Your task to perform on an android device: Go to sound settings Image 0: 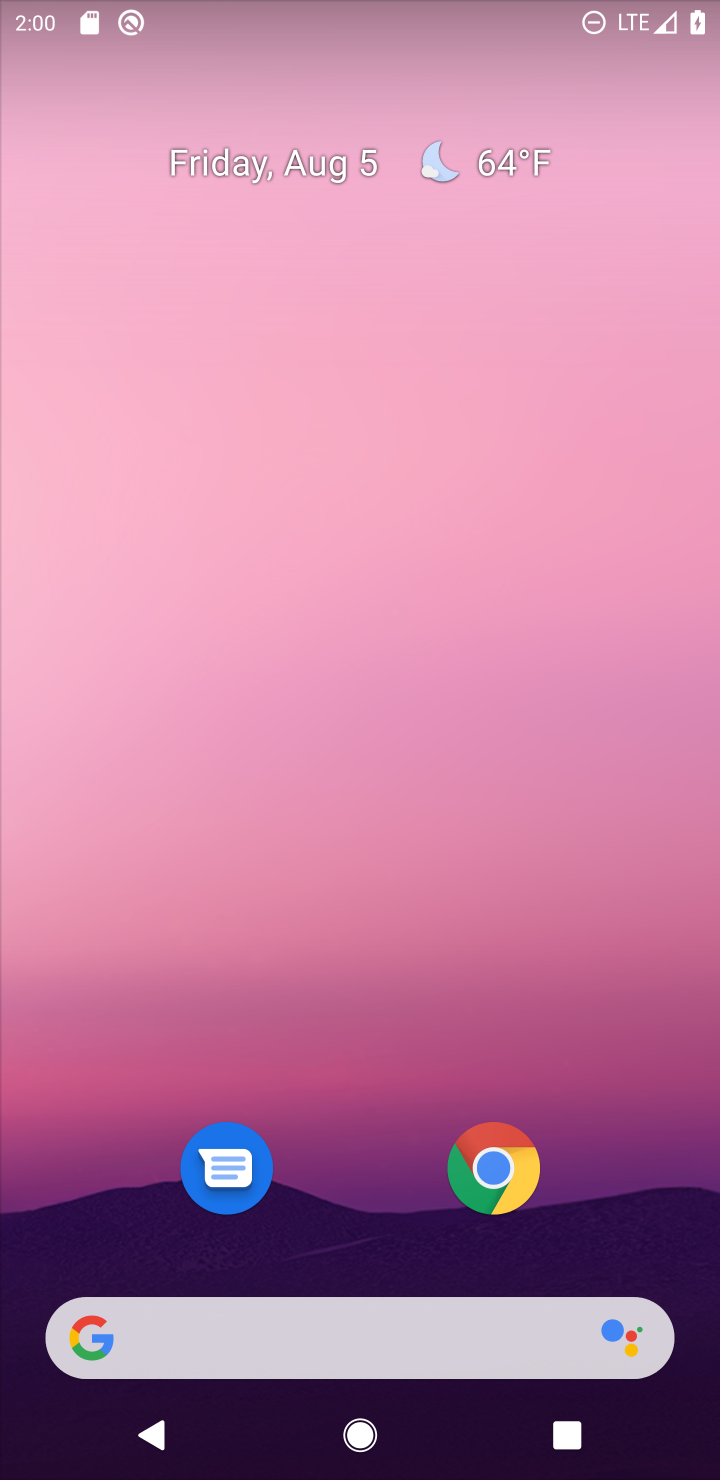
Step 0: drag from (617, 1235) to (223, 6)
Your task to perform on an android device: Go to sound settings Image 1: 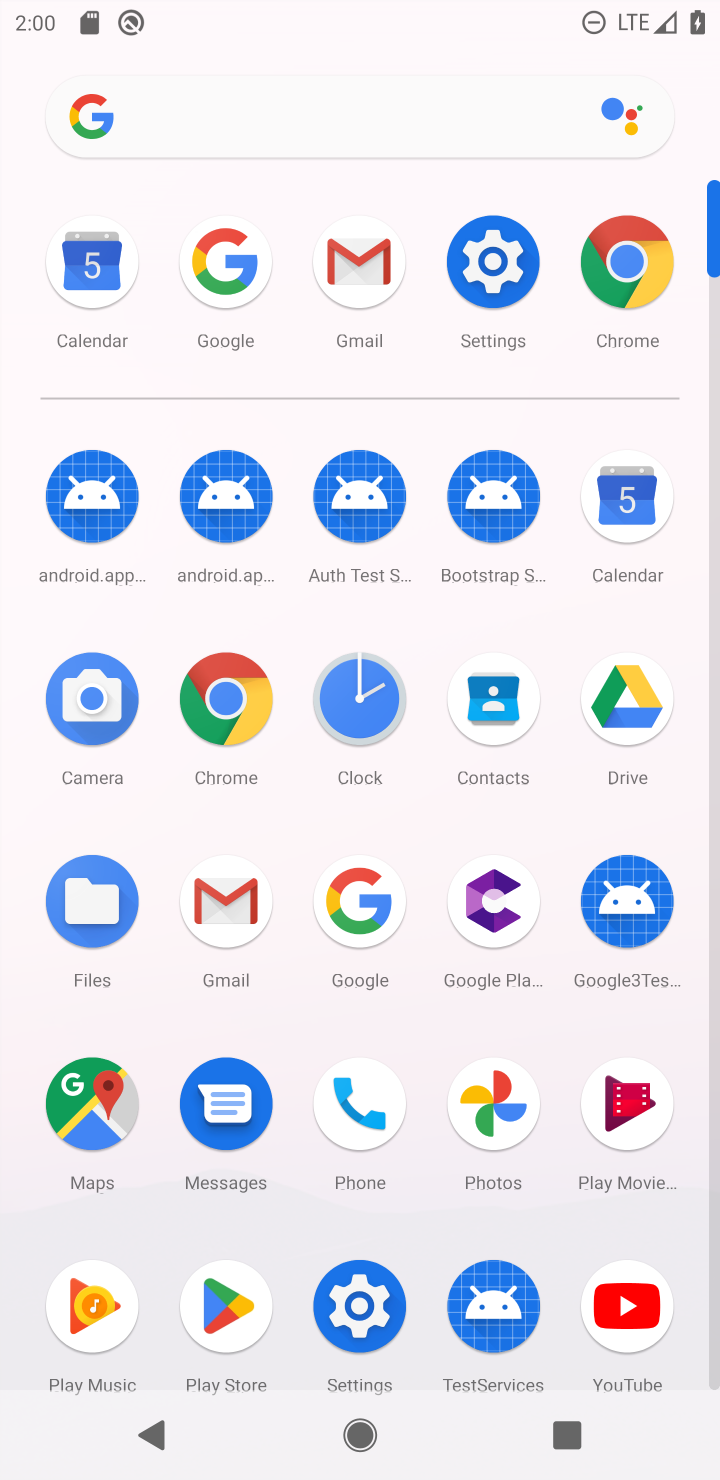
Step 1: click (378, 1297)
Your task to perform on an android device: Go to sound settings Image 2: 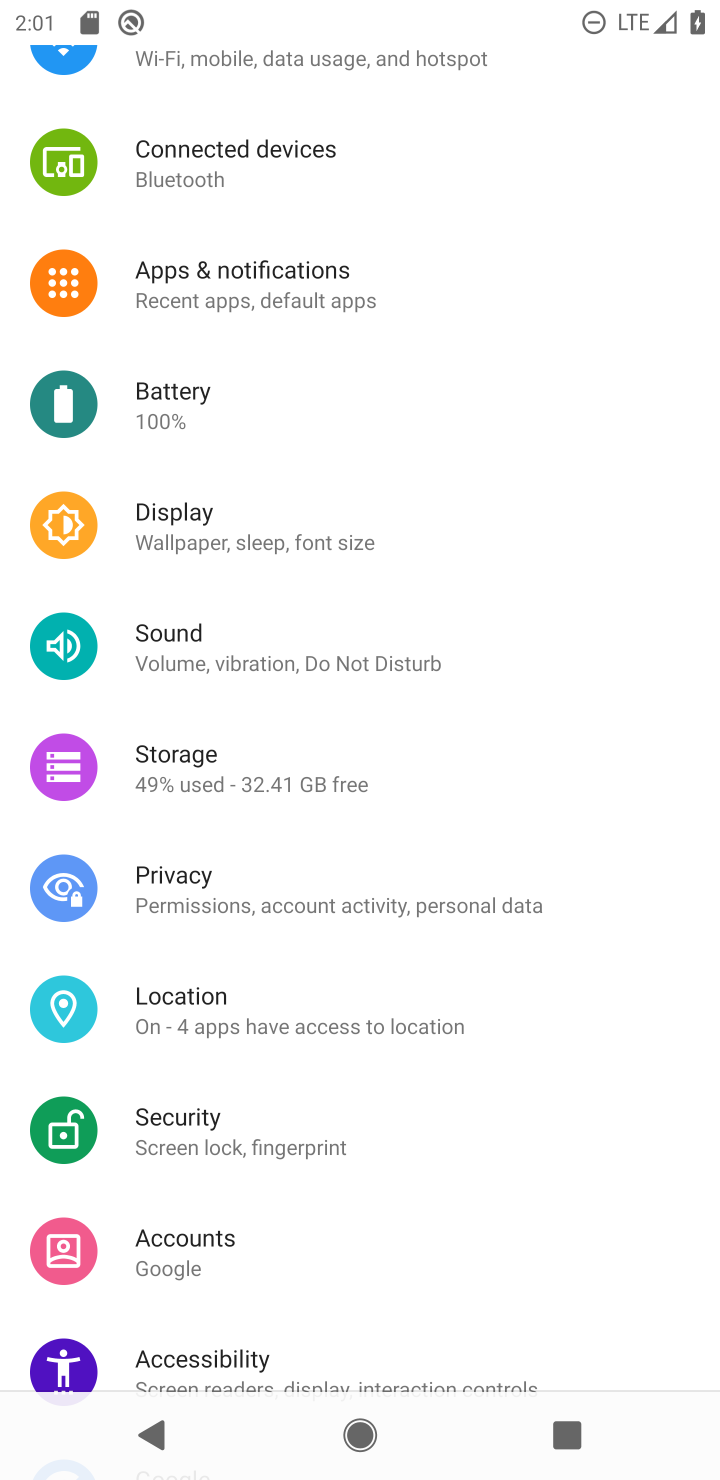
Step 2: click (138, 655)
Your task to perform on an android device: Go to sound settings Image 3: 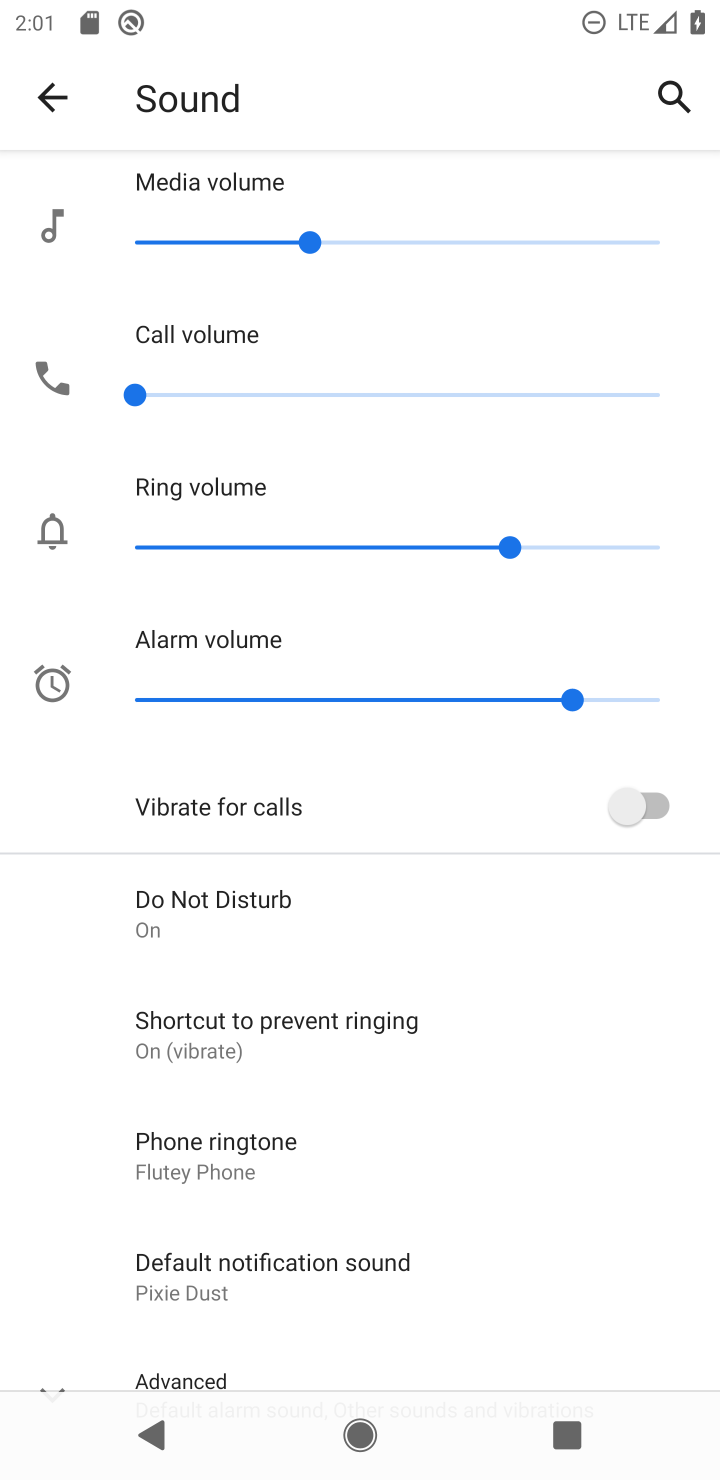
Step 3: task complete